Your task to perform on an android device: delete the emails in spam in the gmail app Image 0: 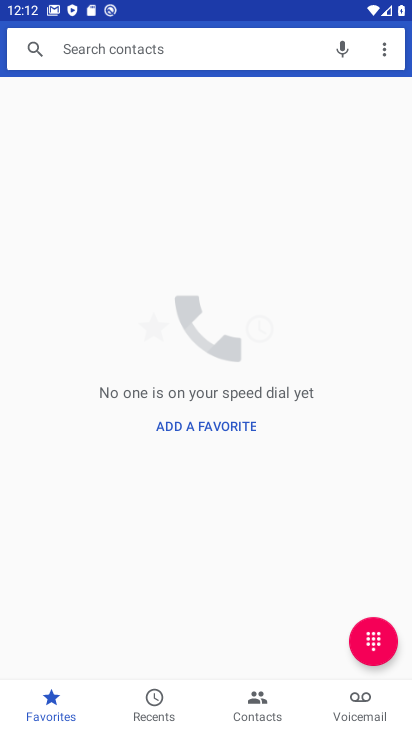
Step 0: drag from (215, 562) to (191, 209)
Your task to perform on an android device: delete the emails in spam in the gmail app Image 1: 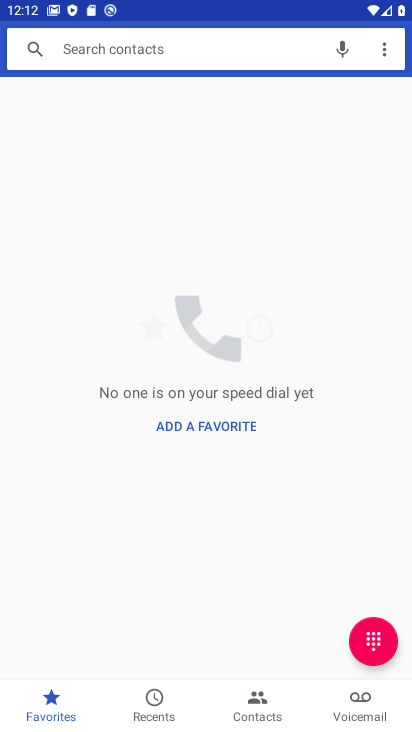
Step 1: press home button
Your task to perform on an android device: delete the emails in spam in the gmail app Image 2: 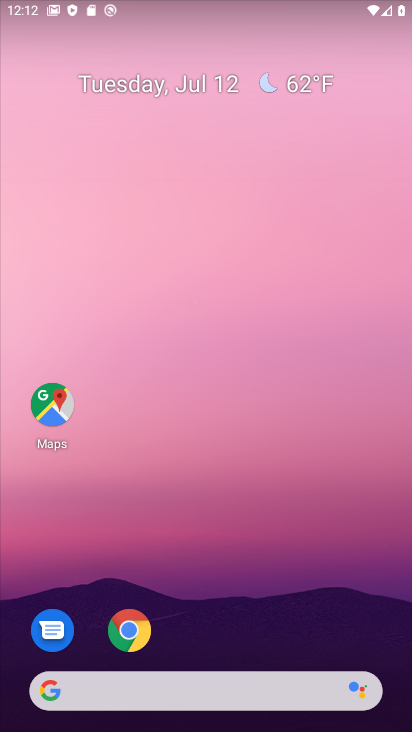
Step 2: drag from (252, 571) to (240, 151)
Your task to perform on an android device: delete the emails in spam in the gmail app Image 3: 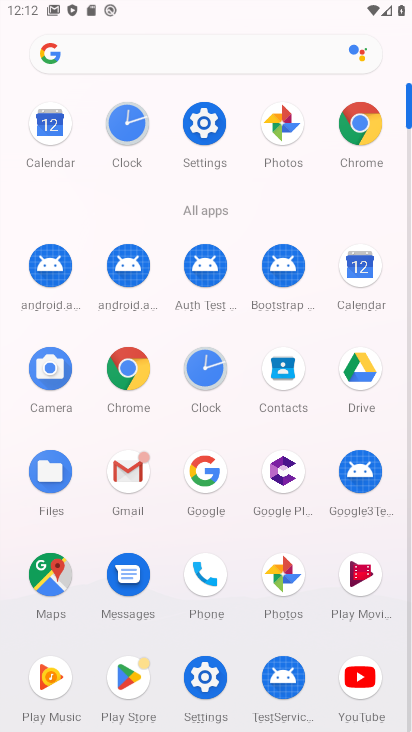
Step 3: click (128, 467)
Your task to perform on an android device: delete the emails in spam in the gmail app Image 4: 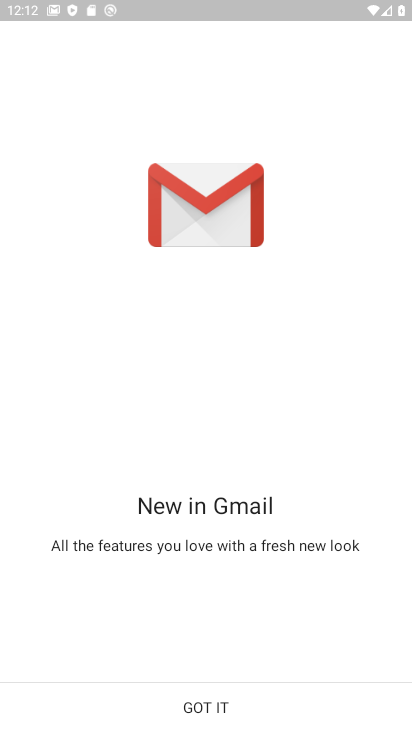
Step 4: click (220, 710)
Your task to perform on an android device: delete the emails in spam in the gmail app Image 5: 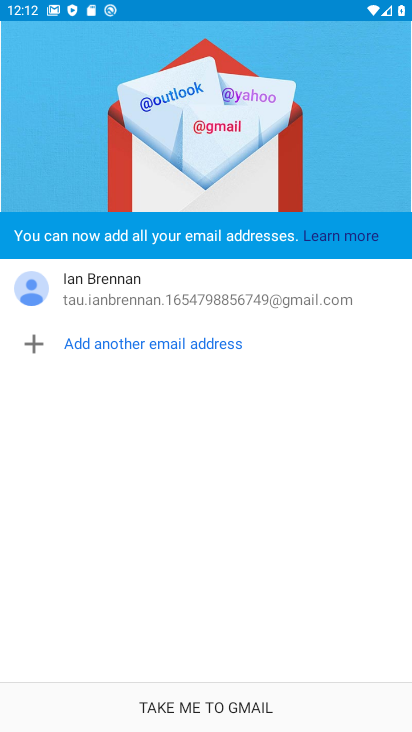
Step 5: click (205, 717)
Your task to perform on an android device: delete the emails in spam in the gmail app Image 6: 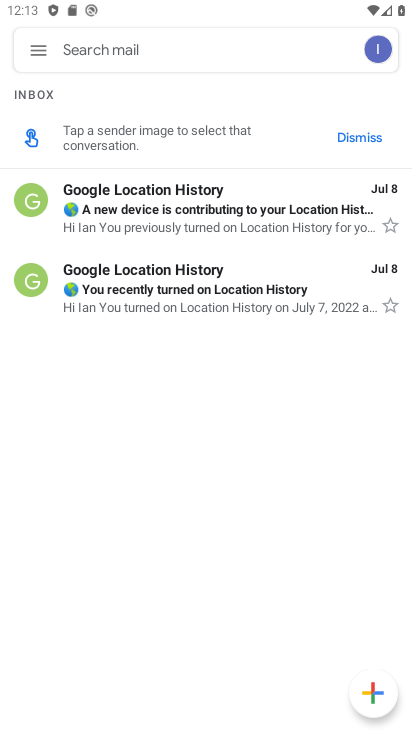
Step 6: click (40, 48)
Your task to perform on an android device: delete the emails in spam in the gmail app Image 7: 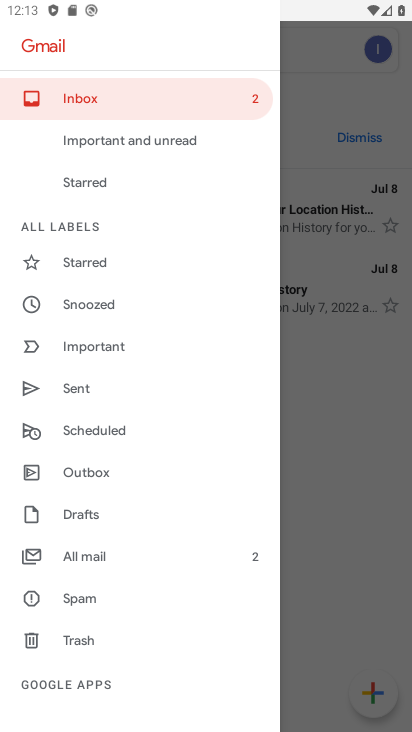
Step 7: click (78, 596)
Your task to perform on an android device: delete the emails in spam in the gmail app Image 8: 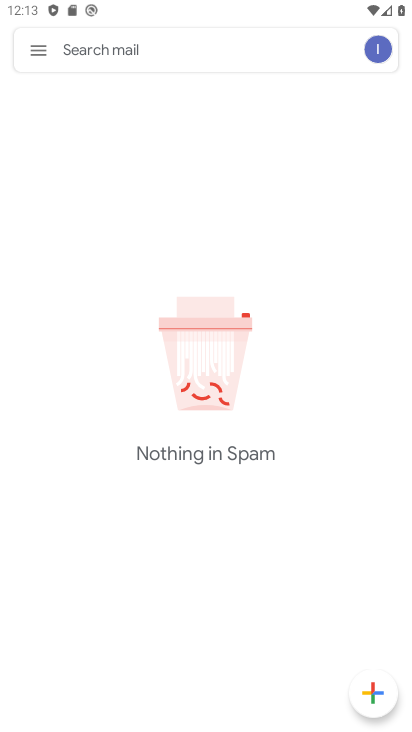
Step 8: task complete